Your task to perform on an android device: turn vacation reply on in the gmail app Image 0: 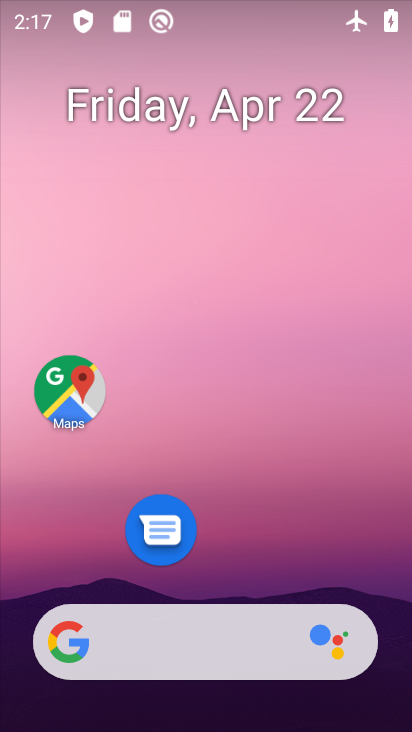
Step 0: drag from (260, 474) to (182, 1)
Your task to perform on an android device: turn vacation reply on in the gmail app Image 1: 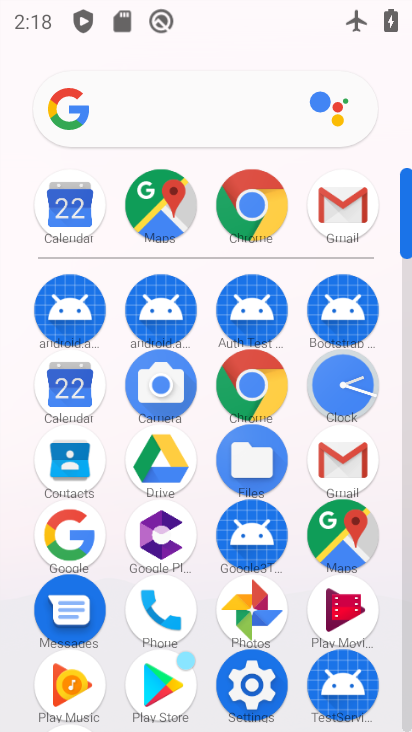
Step 1: click (338, 206)
Your task to perform on an android device: turn vacation reply on in the gmail app Image 2: 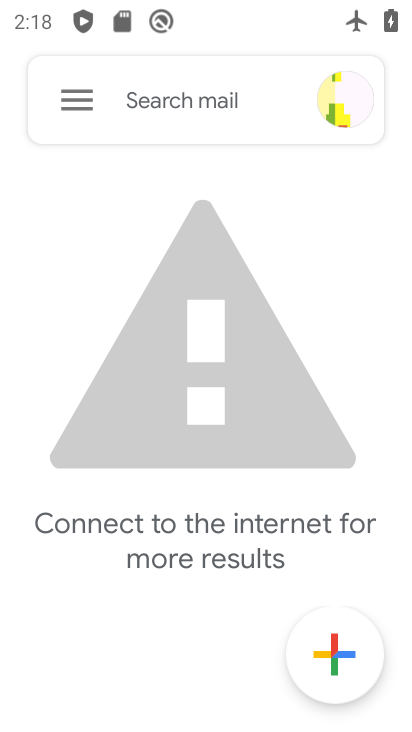
Step 2: click (63, 94)
Your task to perform on an android device: turn vacation reply on in the gmail app Image 3: 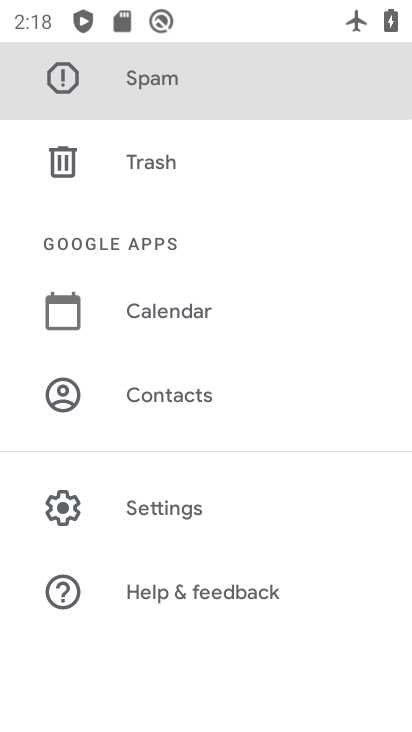
Step 3: click (172, 508)
Your task to perform on an android device: turn vacation reply on in the gmail app Image 4: 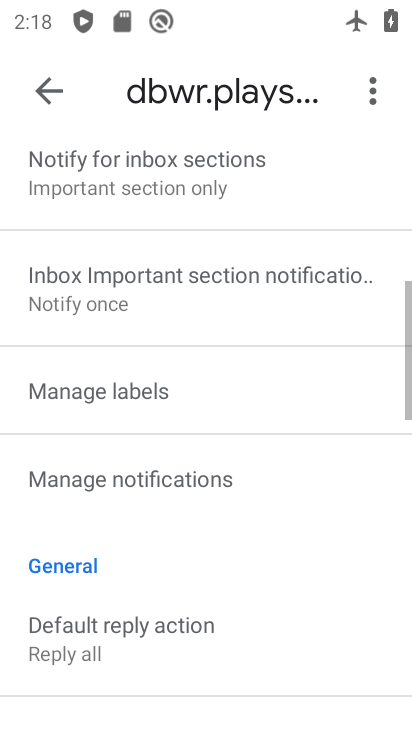
Step 4: drag from (152, 532) to (164, 122)
Your task to perform on an android device: turn vacation reply on in the gmail app Image 5: 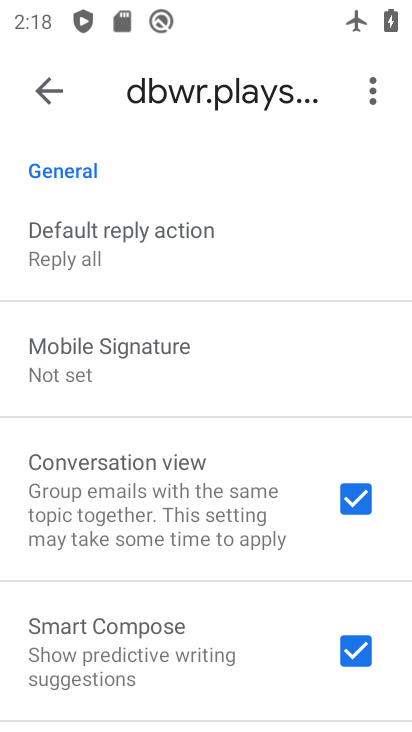
Step 5: drag from (121, 527) to (141, 182)
Your task to perform on an android device: turn vacation reply on in the gmail app Image 6: 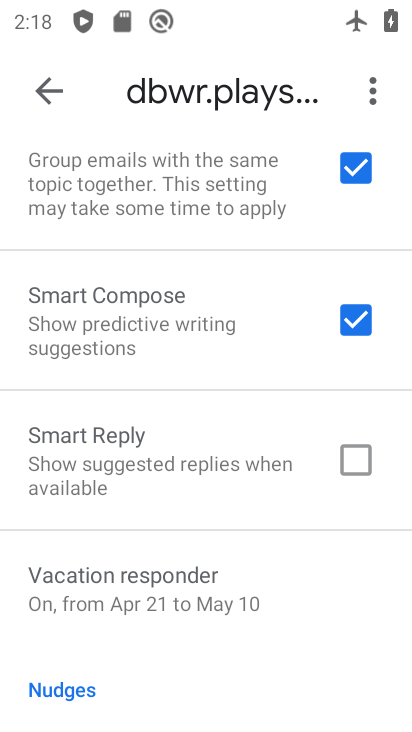
Step 6: click (129, 571)
Your task to perform on an android device: turn vacation reply on in the gmail app Image 7: 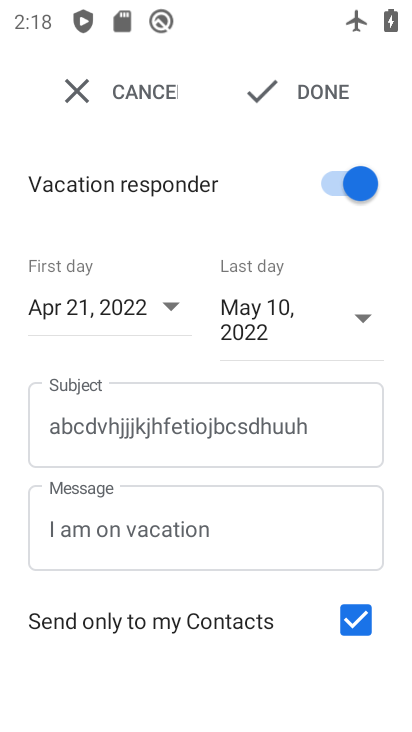
Step 7: click (289, 87)
Your task to perform on an android device: turn vacation reply on in the gmail app Image 8: 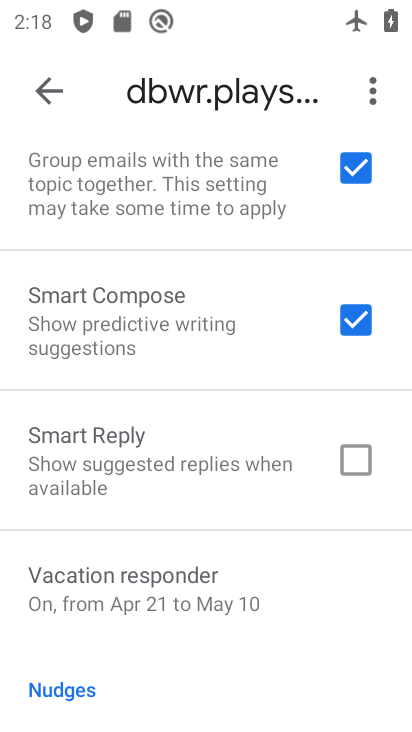
Step 8: task complete